Your task to perform on an android device: What's on my calendar tomorrow? Image 0: 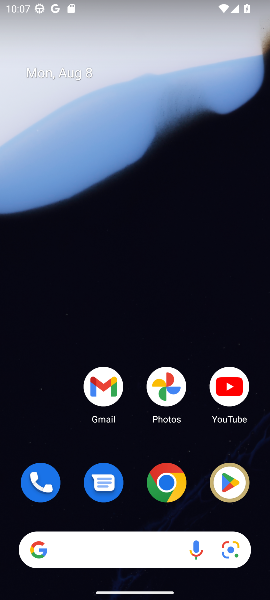
Step 0: drag from (100, 433) to (110, 52)
Your task to perform on an android device: What's on my calendar tomorrow? Image 1: 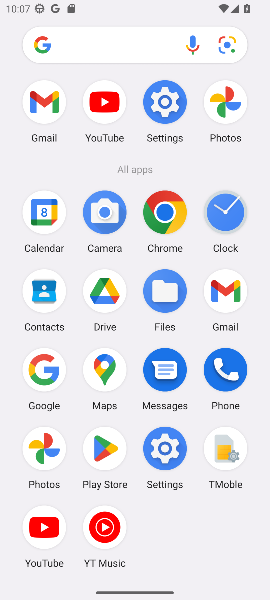
Step 1: click (42, 200)
Your task to perform on an android device: What's on my calendar tomorrow? Image 2: 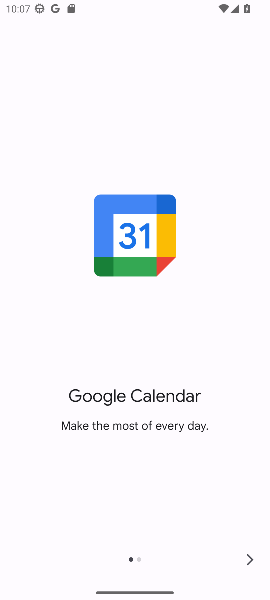
Step 2: click (243, 556)
Your task to perform on an android device: What's on my calendar tomorrow? Image 3: 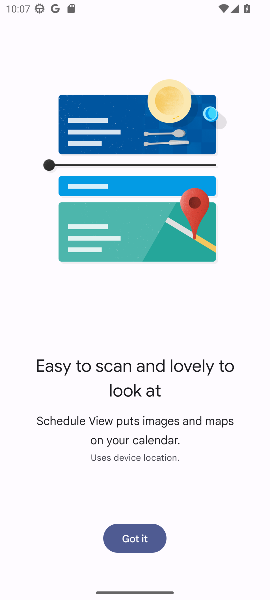
Step 3: click (133, 538)
Your task to perform on an android device: What's on my calendar tomorrow? Image 4: 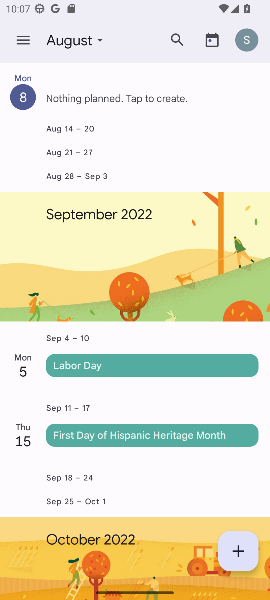
Step 4: click (93, 39)
Your task to perform on an android device: What's on my calendar tomorrow? Image 5: 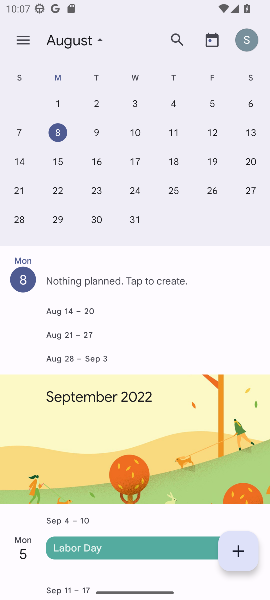
Step 5: click (101, 138)
Your task to perform on an android device: What's on my calendar tomorrow? Image 6: 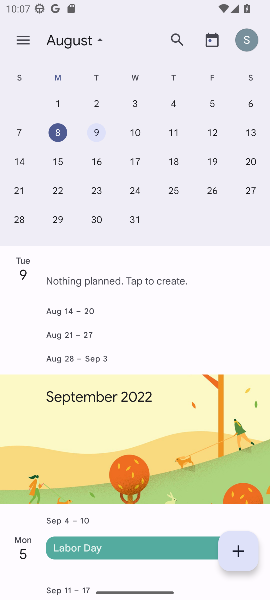
Step 6: task complete